Your task to perform on an android device: turn off priority inbox in the gmail app Image 0: 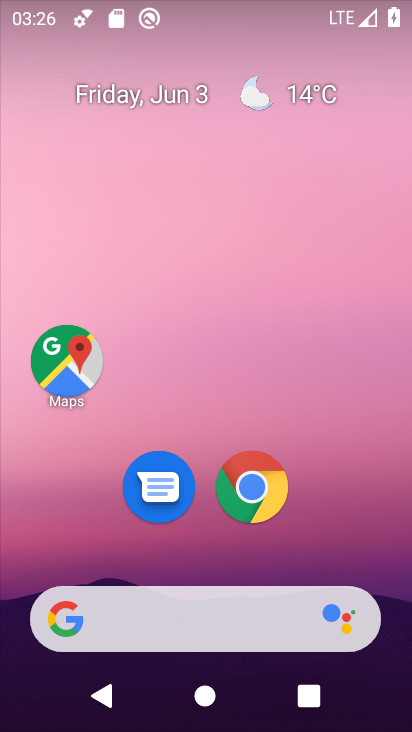
Step 0: drag from (321, 389) to (128, 1)
Your task to perform on an android device: turn off priority inbox in the gmail app Image 1: 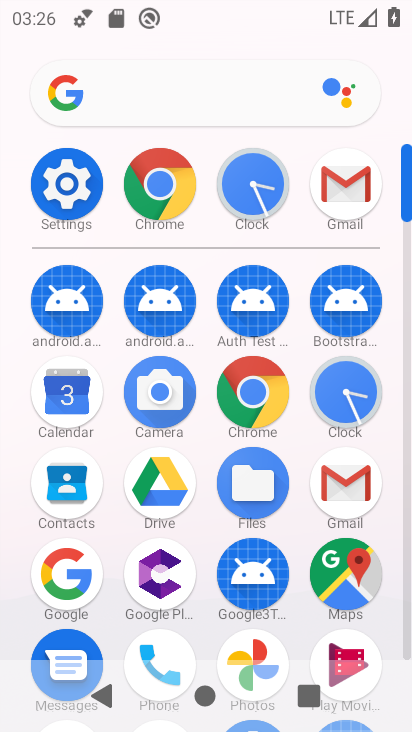
Step 1: click (333, 179)
Your task to perform on an android device: turn off priority inbox in the gmail app Image 2: 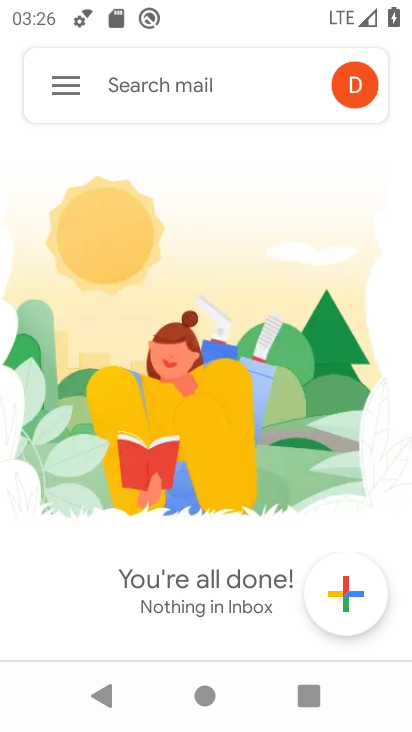
Step 2: click (79, 88)
Your task to perform on an android device: turn off priority inbox in the gmail app Image 3: 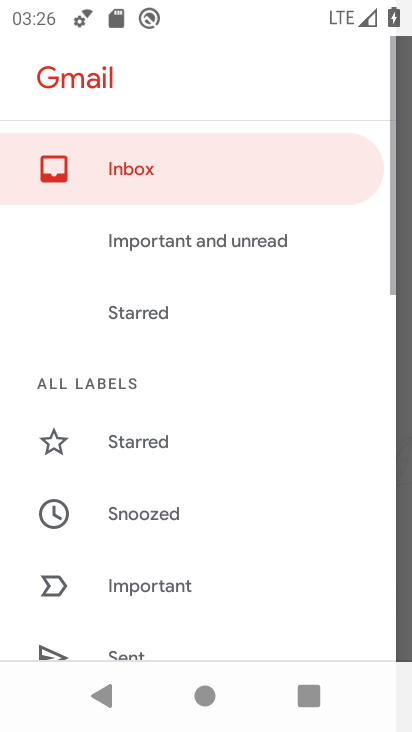
Step 3: drag from (234, 587) to (188, 9)
Your task to perform on an android device: turn off priority inbox in the gmail app Image 4: 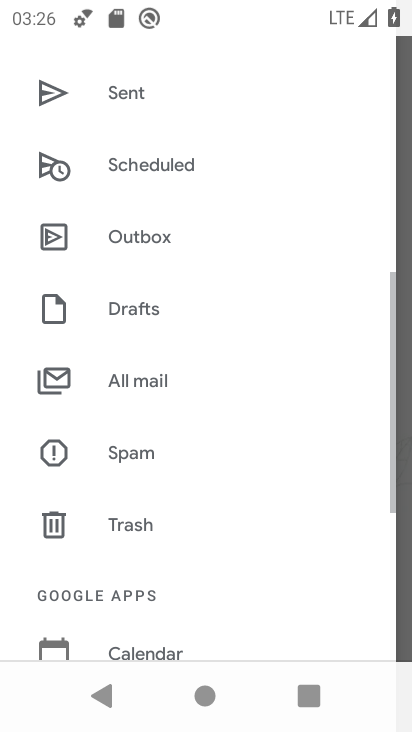
Step 4: drag from (168, 566) to (189, 75)
Your task to perform on an android device: turn off priority inbox in the gmail app Image 5: 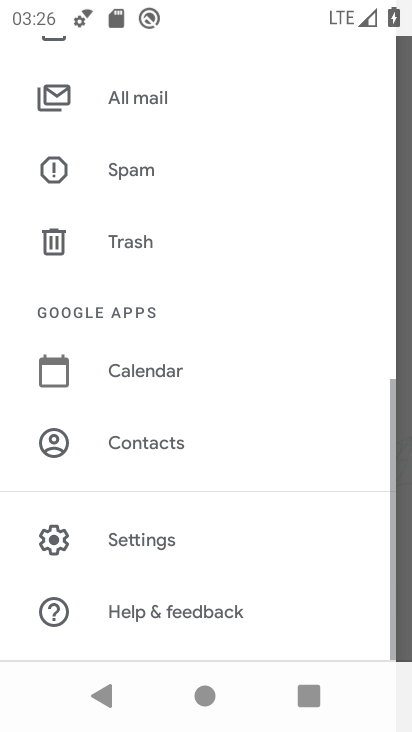
Step 5: click (169, 521)
Your task to perform on an android device: turn off priority inbox in the gmail app Image 6: 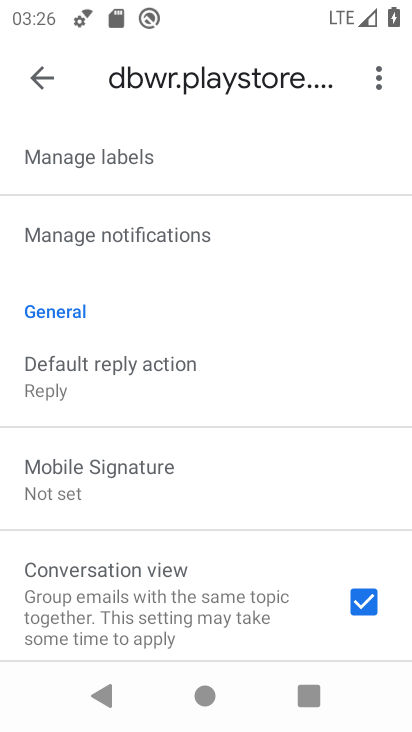
Step 6: drag from (193, 210) to (187, 666)
Your task to perform on an android device: turn off priority inbox in the gmail app Image 7: 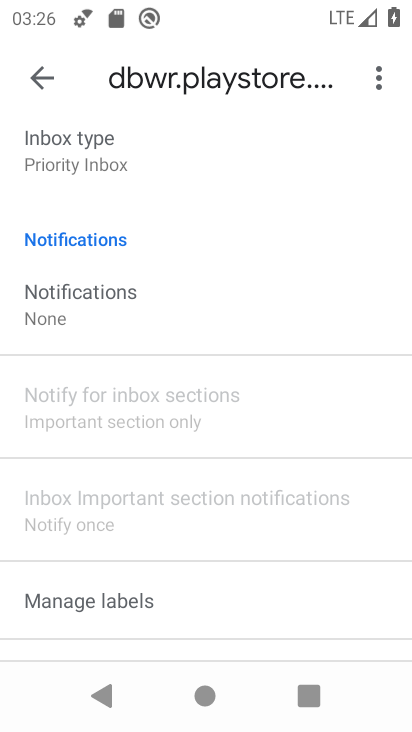
Step 7: click (147, 146)
Your task to perform on an android device: turn off priority inbox in the gmail app Image 8: 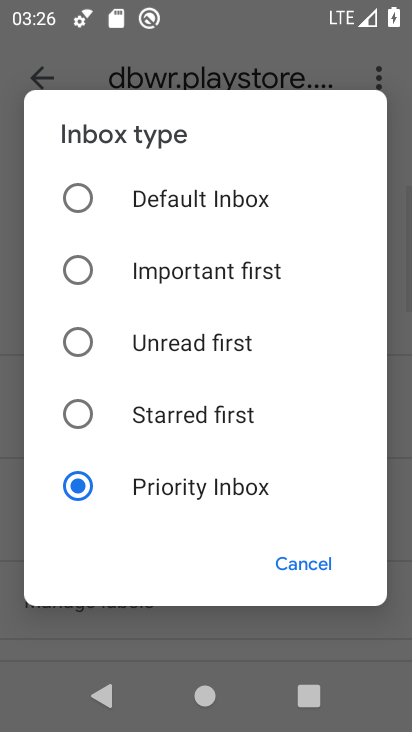
Step 8: click (193, 206)
Your task to perform on an android device: turn off priority inbox in the gmail app Image 9: 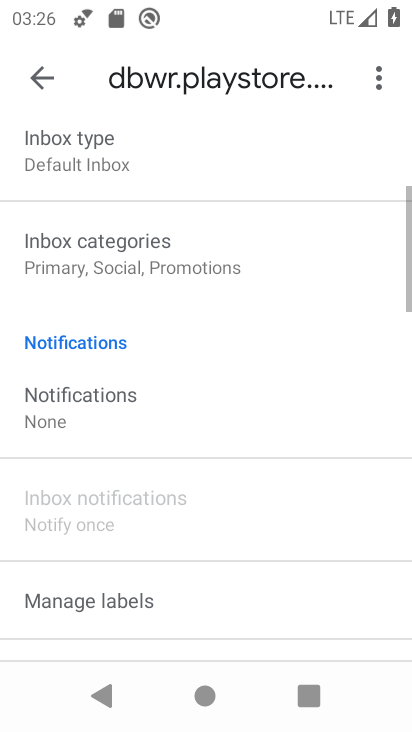
Step 9: task complete